Your task to perform on an android device: Show me the alarms in the clock app Image 0: 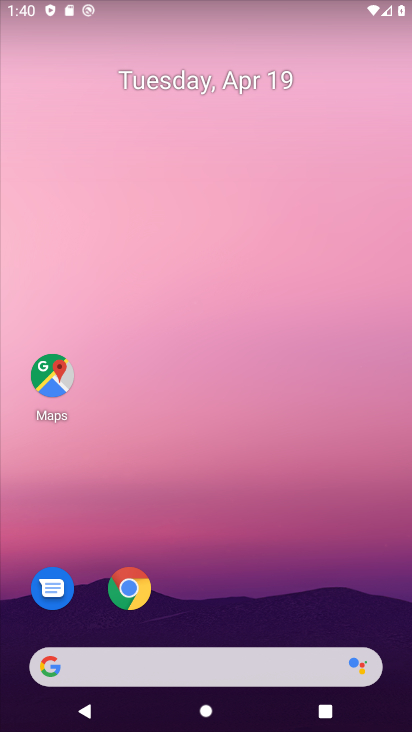
Step 0: drag from (215, 526) to (218, 97)
Your task to perform on an android device: Show me the alarms in the clock app Image 1: 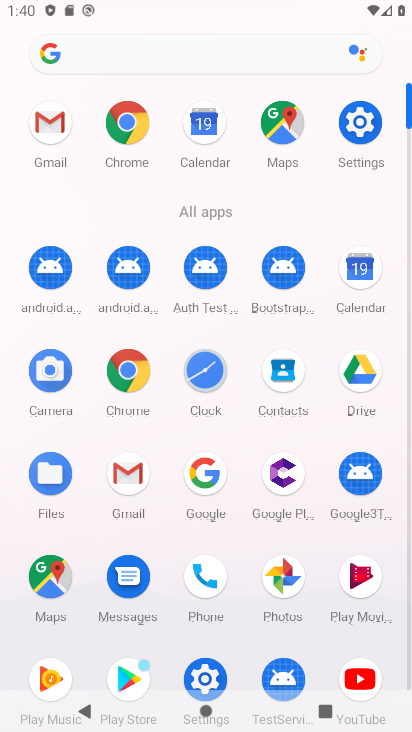
Step 1: click (201, 378)
Your task to perform on an android device: Show me the alarms in the clock app Image 2: 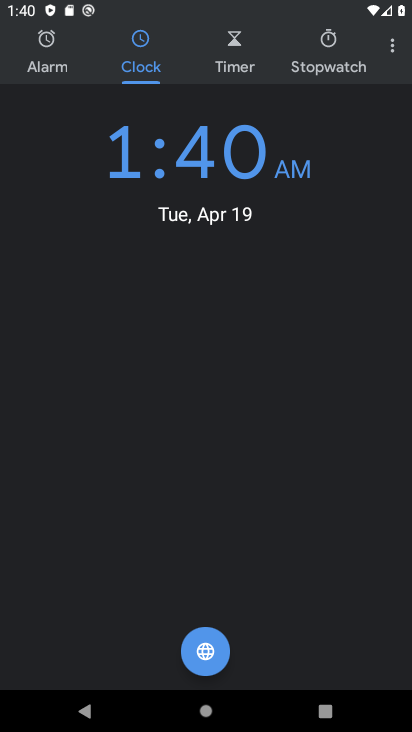
Step 2: click (44, 54)
Your task to perform on an android device: Show me the alarms in the clock app Image 3: 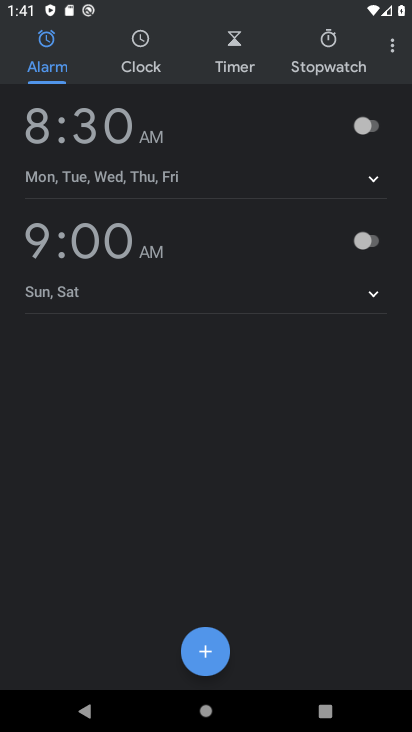
Step 3: task complete